Your task to perform on an android device: Go to battery settings Image 0: 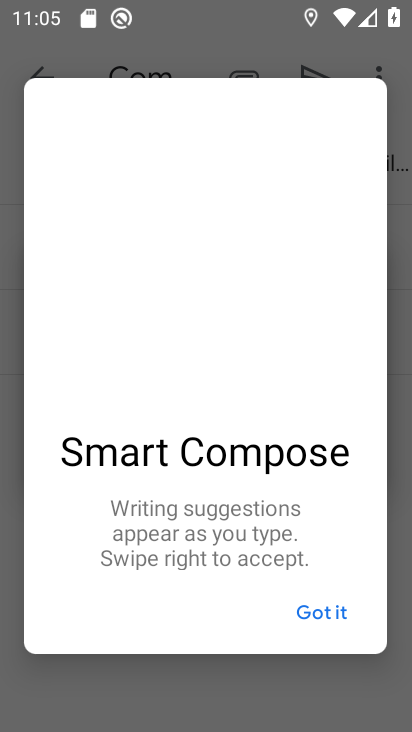
Step 0: press home button
Your task to perform on an android device: Go to battery settings Image 1: 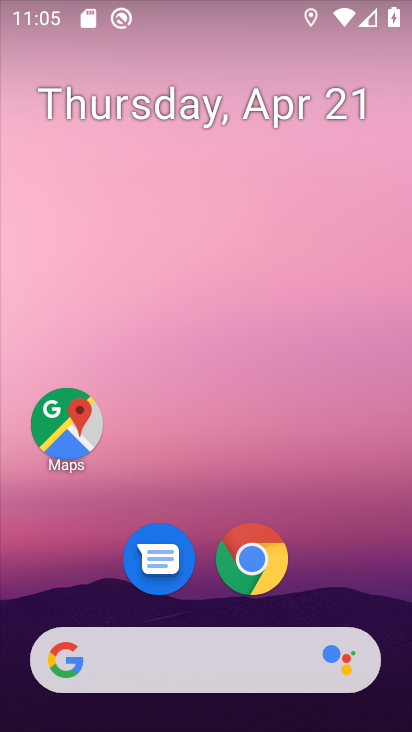
Step 1: drag from (374, 586) to (355, 6)
Your task to perform on an android device: Go to battery settings Image 2: 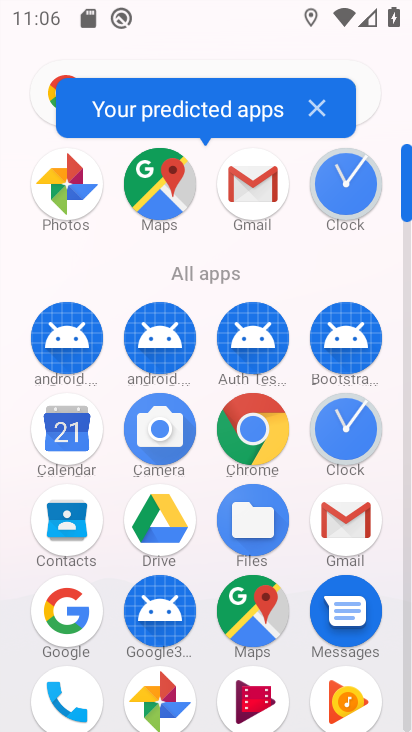
Step 2: drag from (405, 505) to (401, 433)
Your task to perform on an android device: Go to battery settings Image 3: 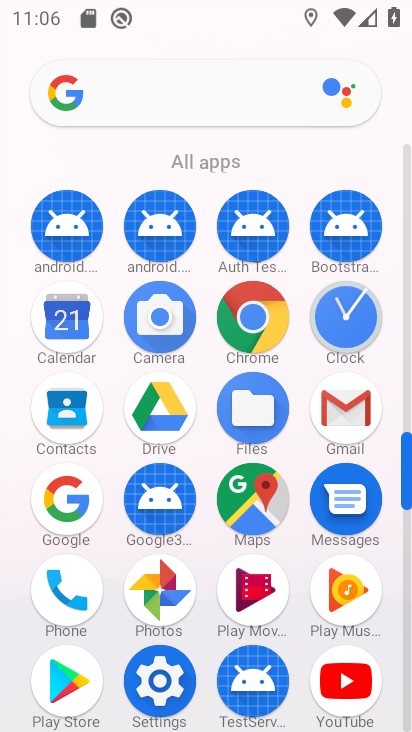
Step 3: click (158, 682)
Your task to perform on an android device: Go to battery settings Image 4: 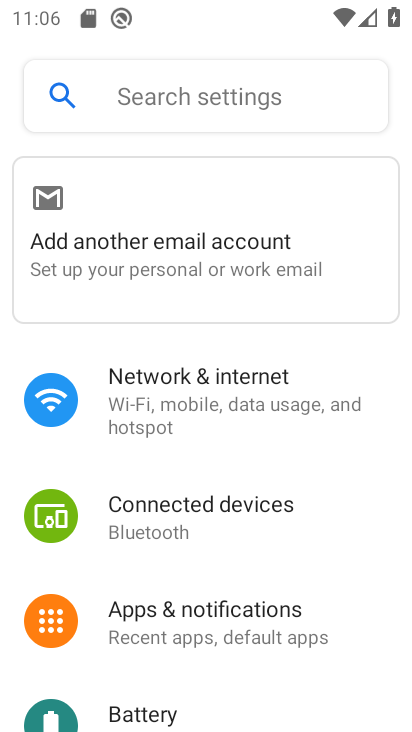
Step 4: click (160, 714)
Your task to perform on an android device: Go to battery settings Image 5: 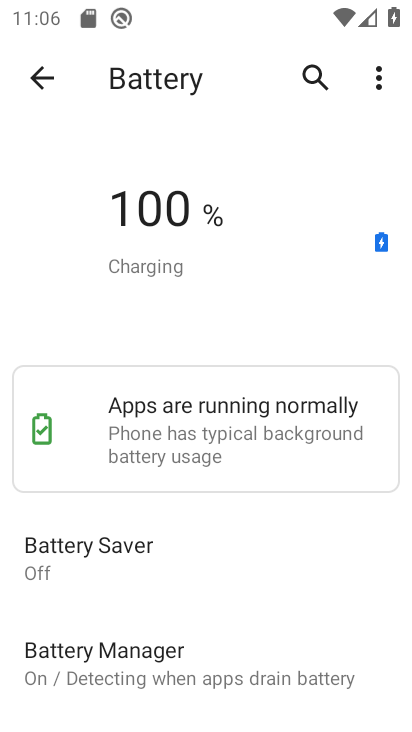
Step 5: task complete